Your task to perform on an android device: Open battery settings Image 0: 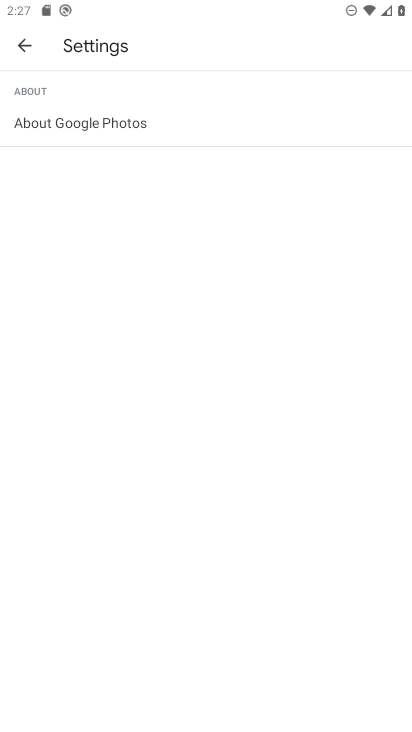
Step 0: press home button
Your task to perform on an android device: Open battery settings Image 1: 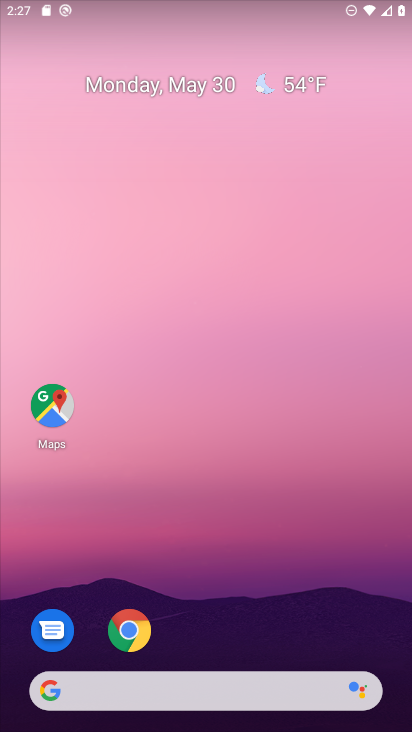
Step 1: drag from (217, 649) to (271, 88)
Your task to perform on an android device: Open battery settings Image 2: 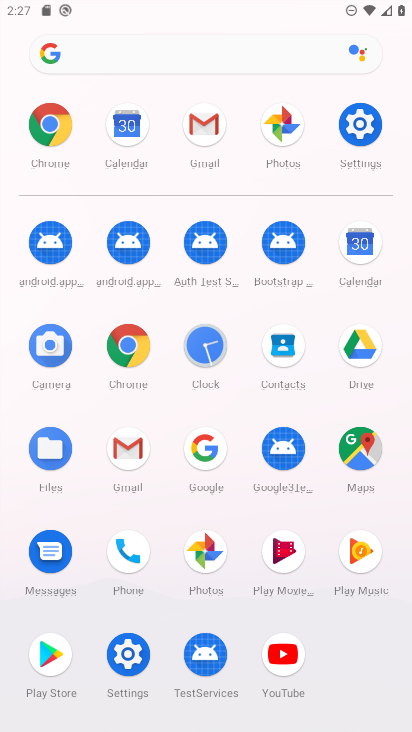
Step 2: click (363, 130)
Your task to perform on an android device: Open battery settings Image 3: 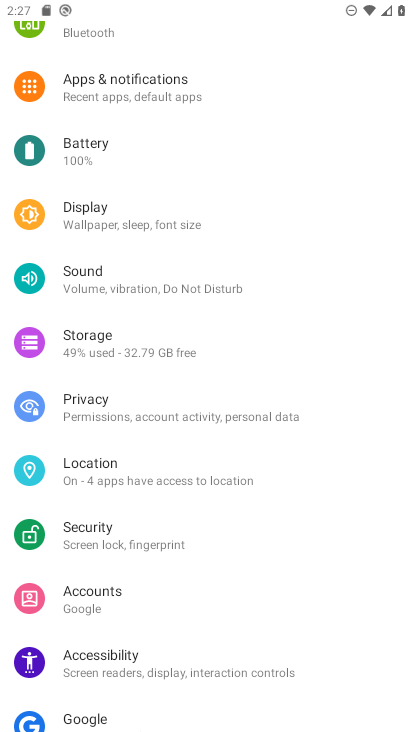
Step 3: click (85, 140)
Your task to perform on an android device: Open battery settings Image 4: 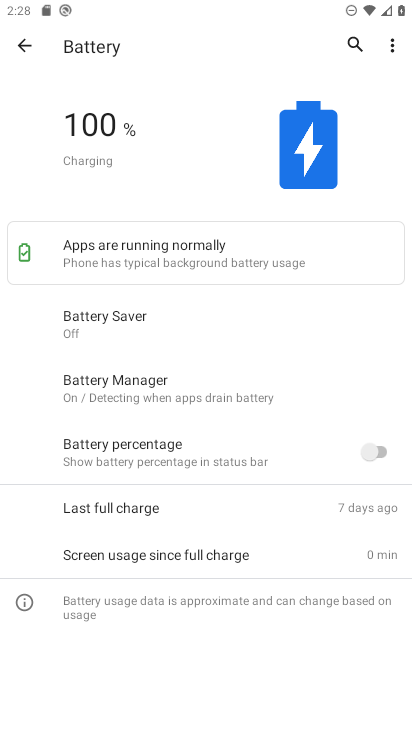
Step 4: task complete